Your task to perform on an android device: Do I have any events this weekend? Image 0: 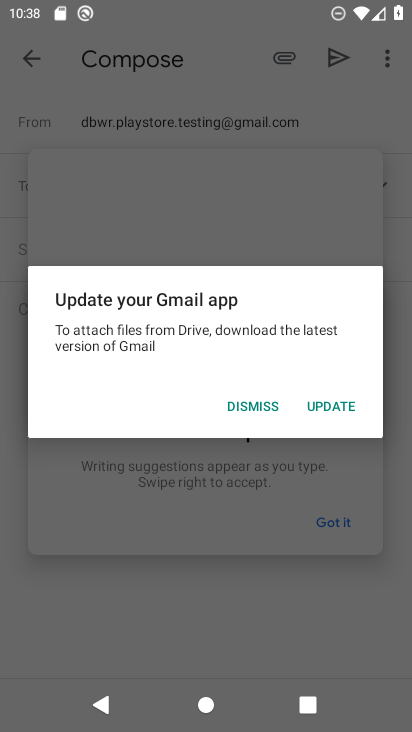
Step 0: press home button
Your task to perform on an android device: Do I have any events this weekend? Image 1: 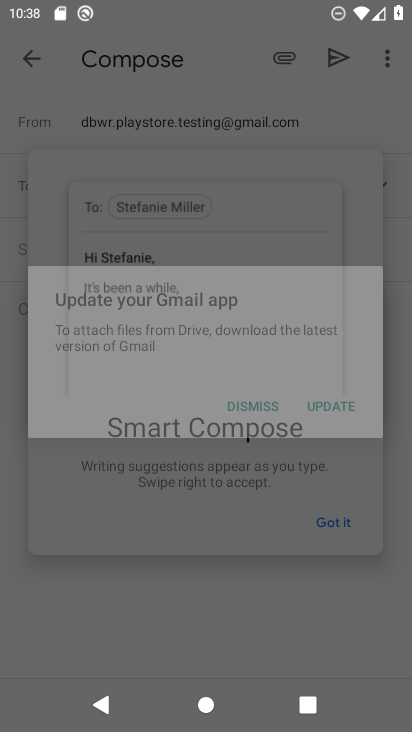
Step 1: drag from (167, 556) to (278, 92)
Your task to perform on an android device: Do I have any events this weekend? Image 2: 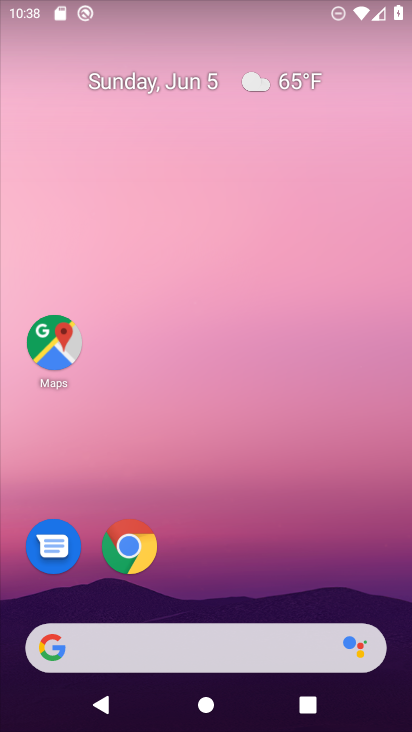
Step 2: drag from (211, 592) to (245, 237)
Your task to perform on an android device: Do I have any events this weekend? Image 3: 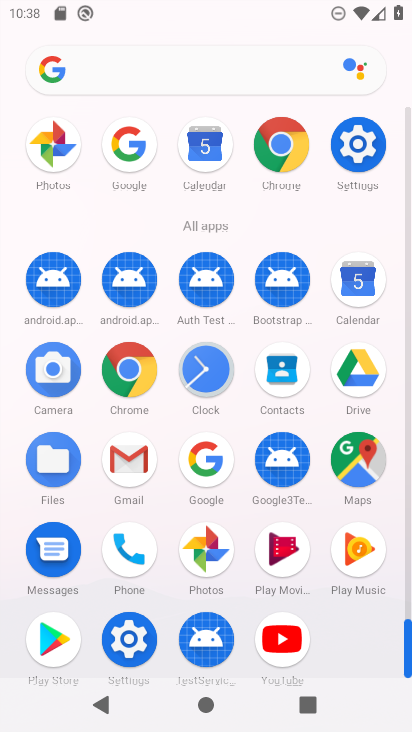
Step 3: click (356, 303)
Your task to perform on an android device: Do I have any events this weekend? Image 4: 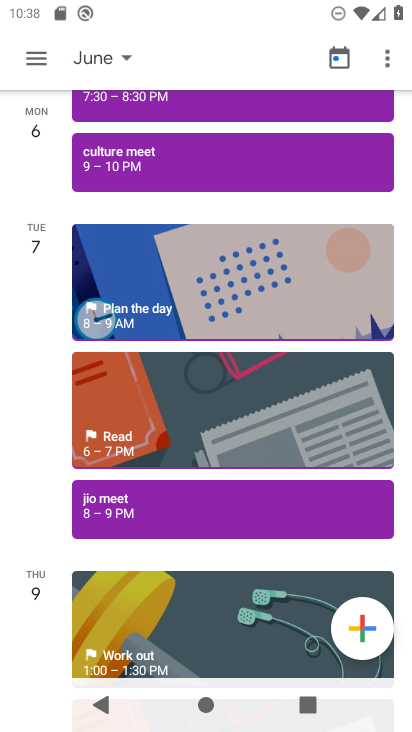
Step 4: click (113, 68)
Your task to perform on an android device: Do I have any events this weekend? Image 5: 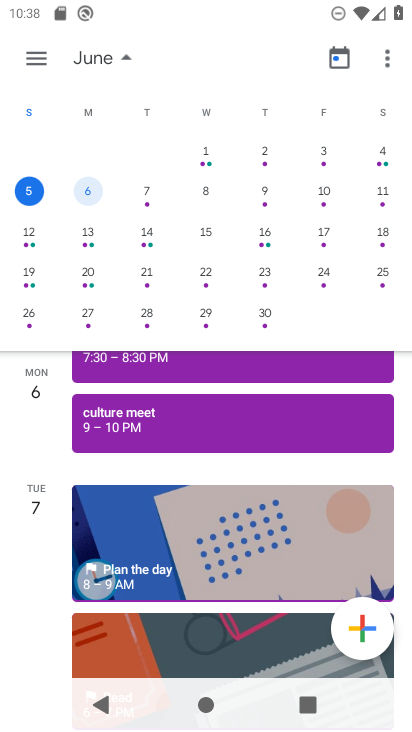
Step 5: click (380, 188)
Your task to perform on an android device: Do I have any events this weekend? Image 6: 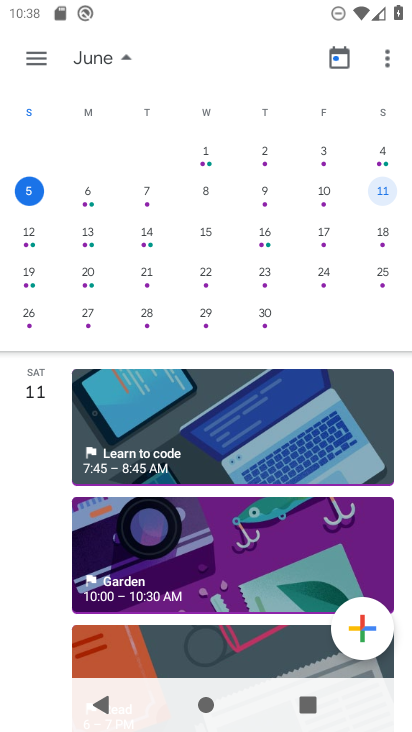
Step 6: click (269, 194)
Your task to perform on an android device: Do I have any events this weekend? Image 7: 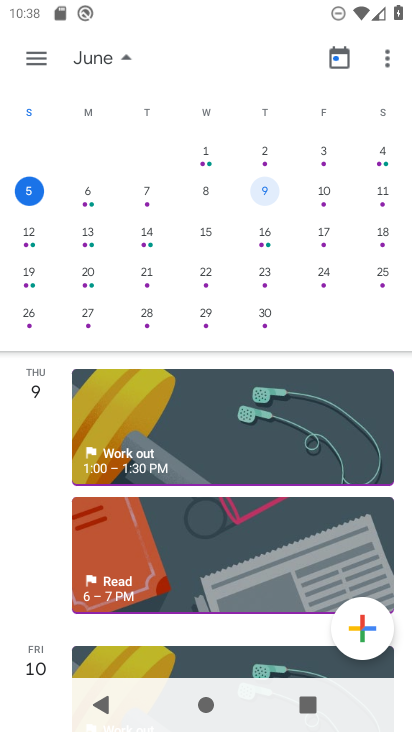
Step 7: task complete